Your task to perform on an android device: Open Android settings Image 0: 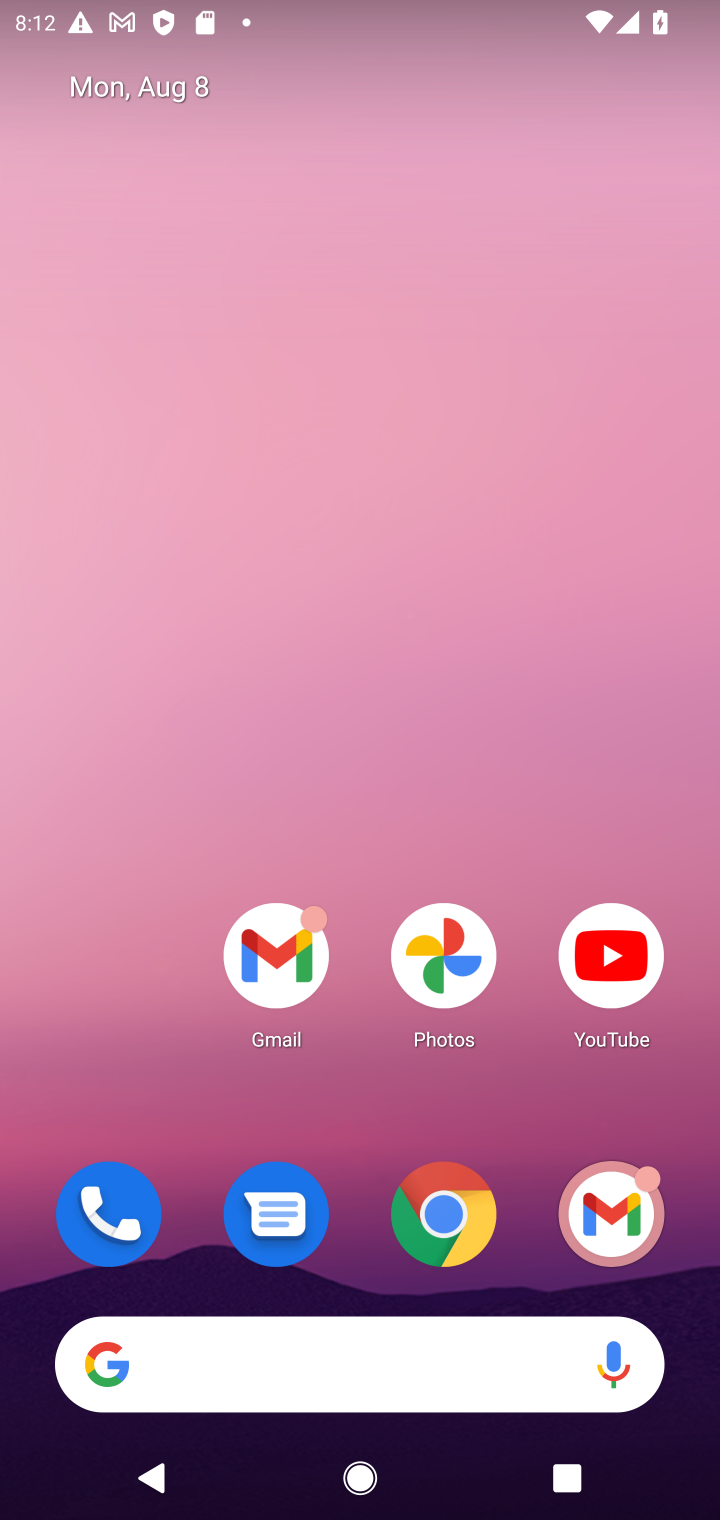
Step 0: drag from (184, 1081) to (548, 42)
Your task to perform on an android device: Open Android settings Image 1: 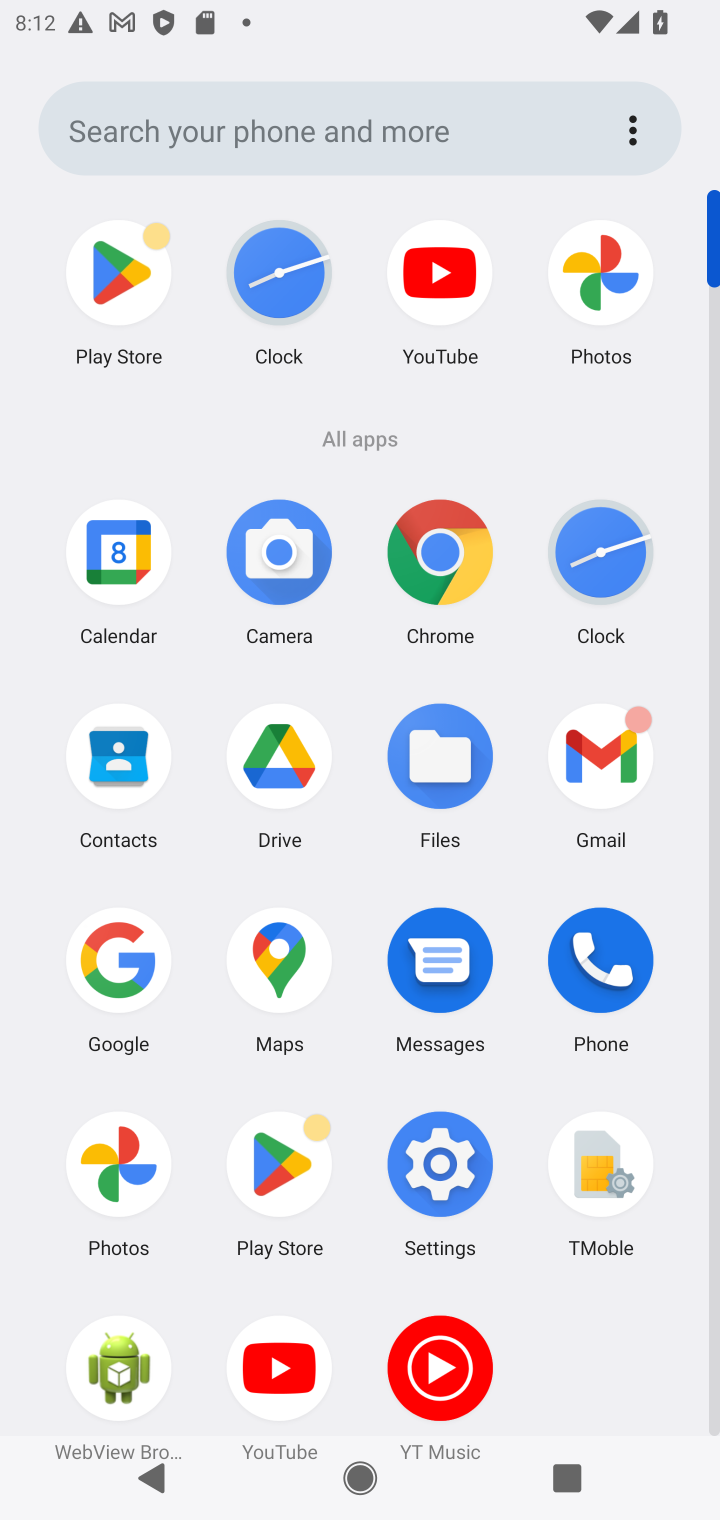
Step 1: click (437, 1141)
Your task to perform on an android device: Open Android settings Image 2: 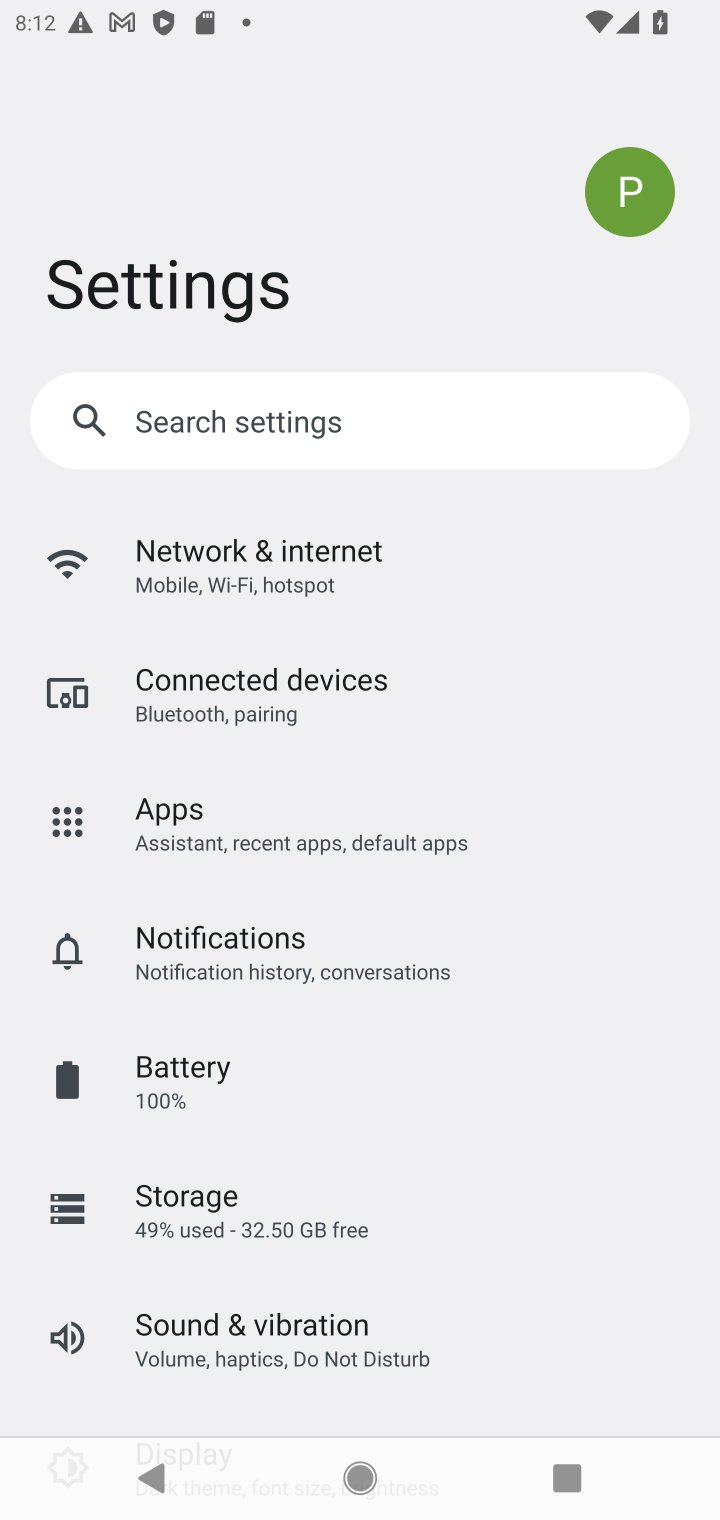
Step 2: click (525, 1141)
Your task to perform on an android device: Open Android settings Image 3: 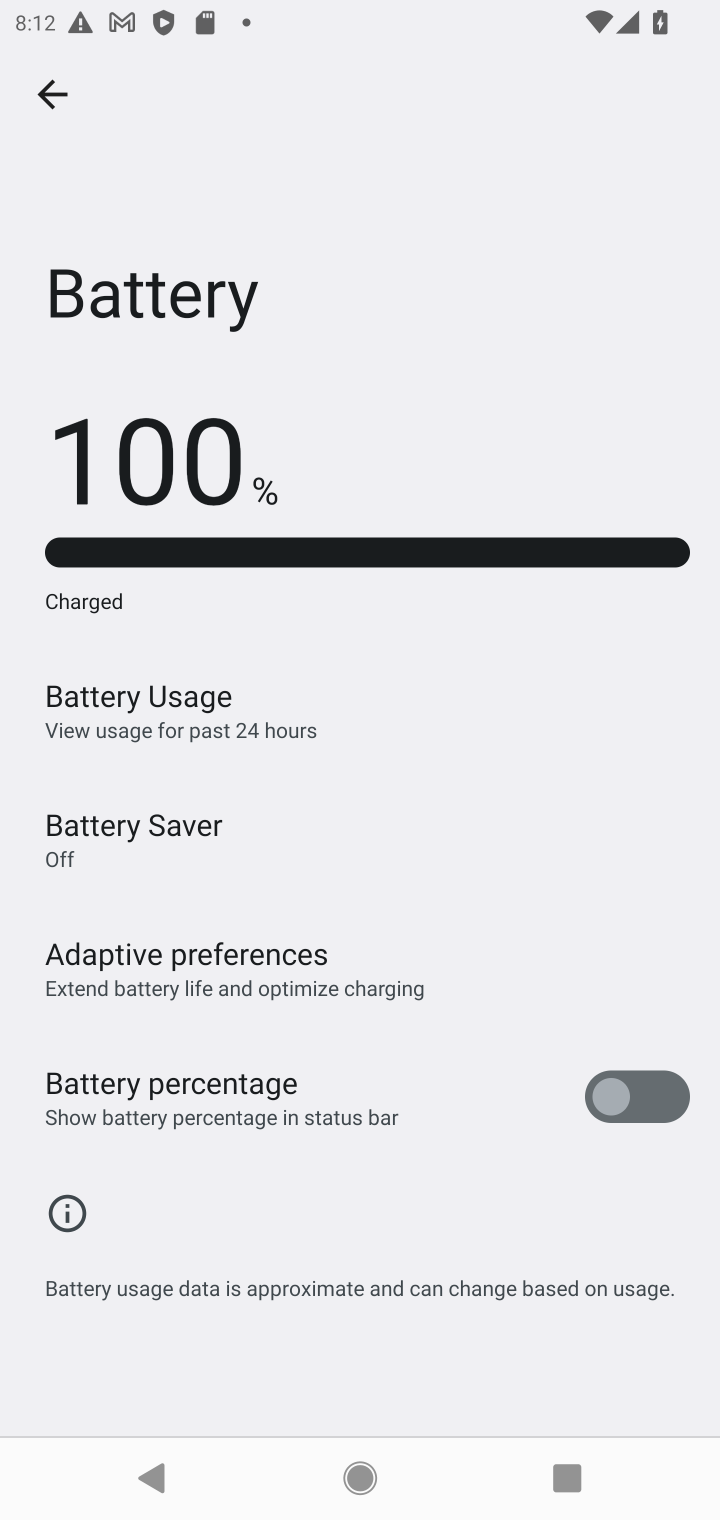
Step 3: click (55, 94)
Your task to perform on an android device: Open Android settings Image 4: 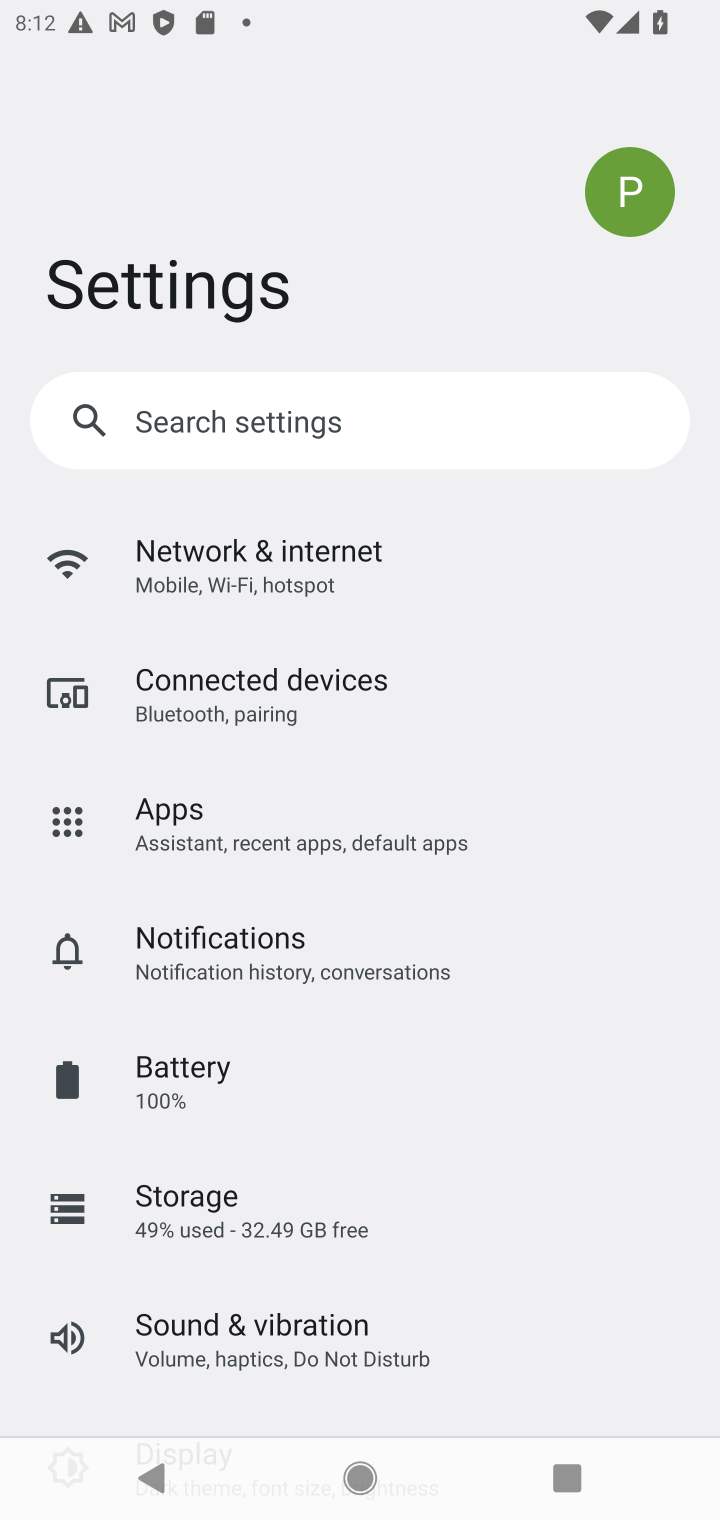
Step 4: drag from (629, 1169) to (304, 86)
Your task to perform on an android device: Open Android settings Image 5: 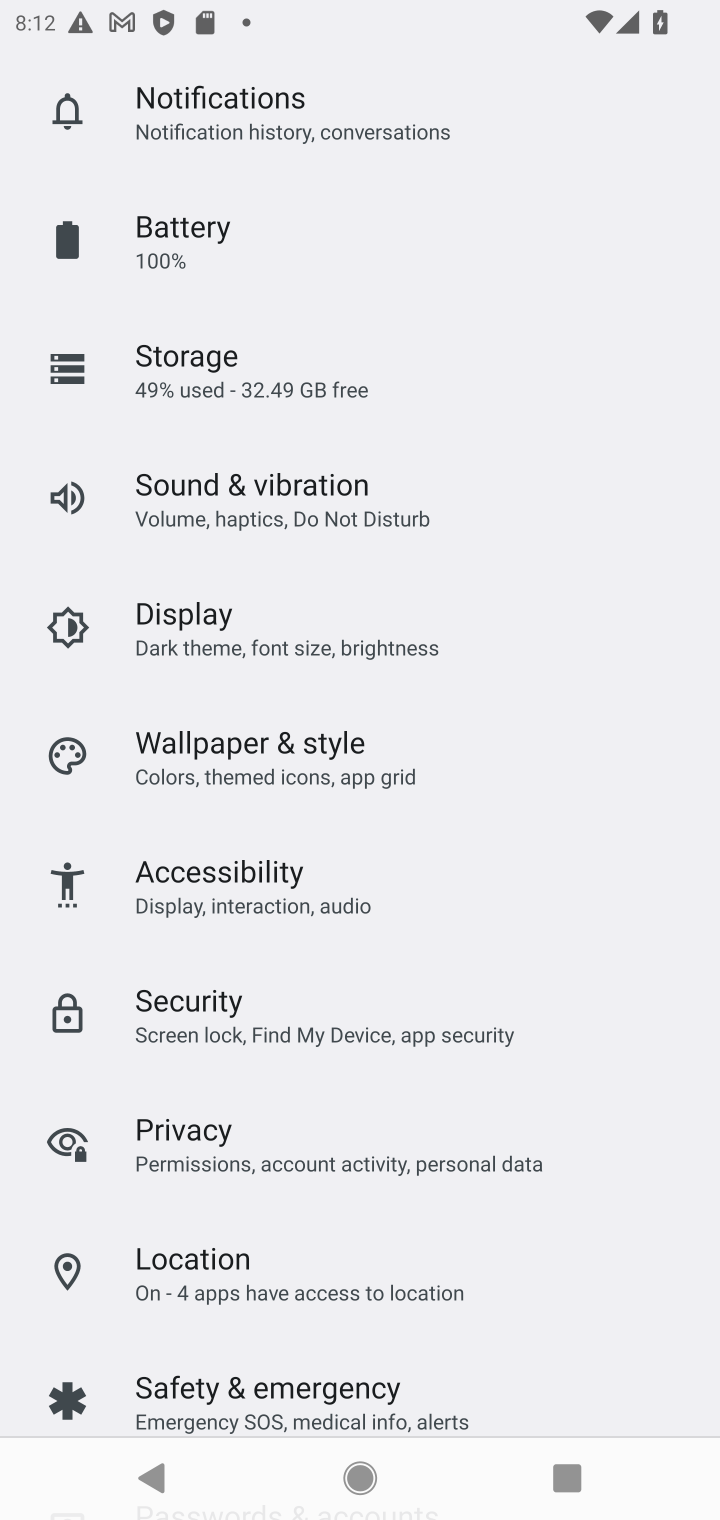
Step 5: drag from (572, 1227) to (483, 525)
Your task to perform on an android device: Open Android settings Image 6: 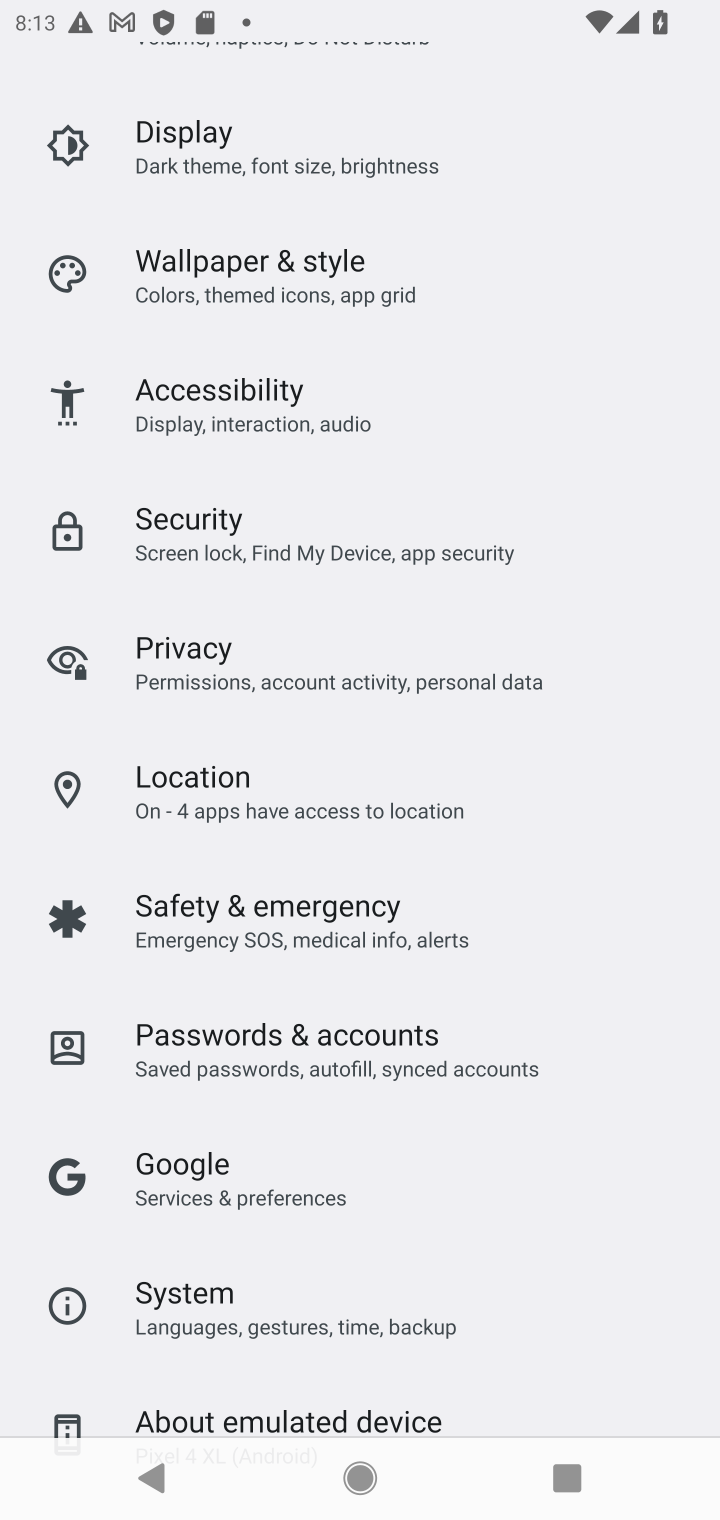
Step 6: drag from (650, 1291) to (418, 444)
Your task to perform on an android device: Open Android settings Image 7: 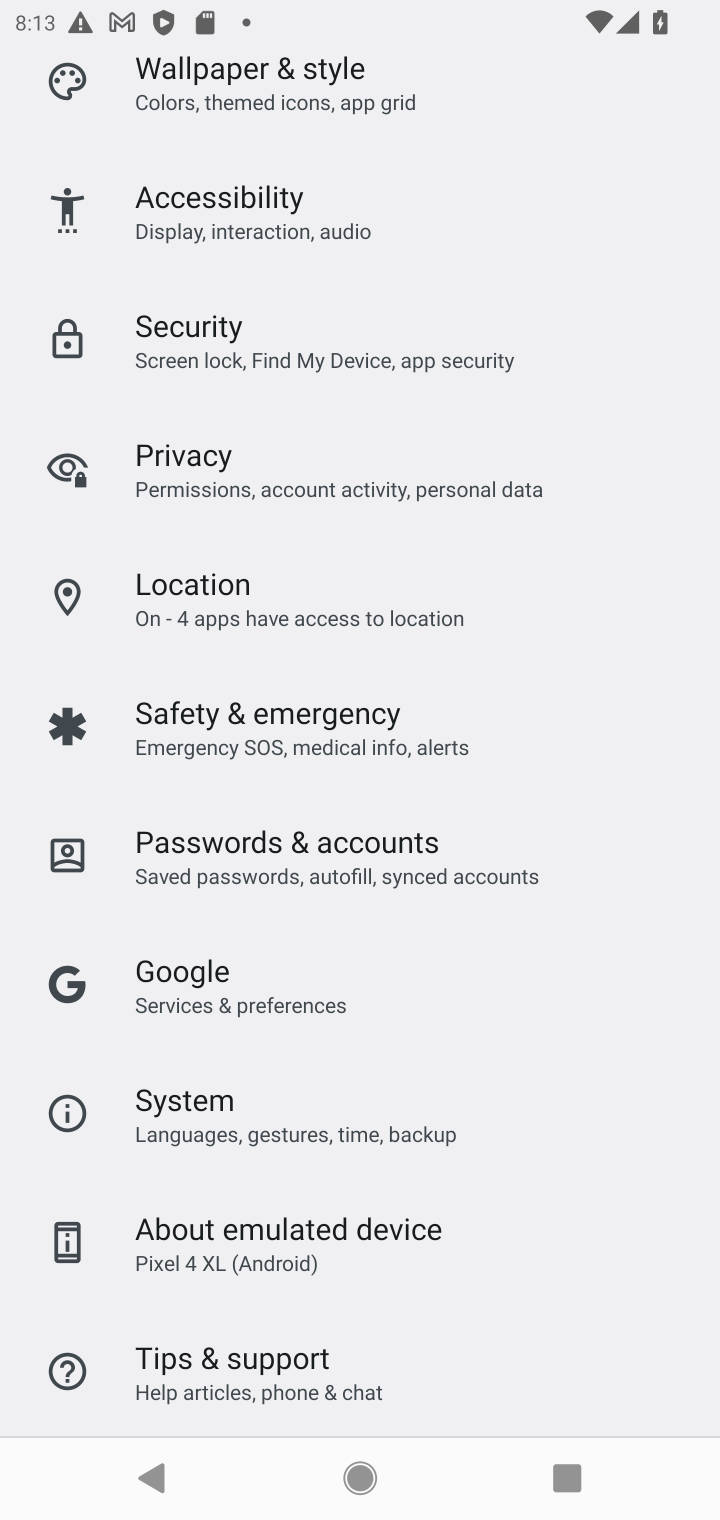
Step 7: click (203, 1232)
Your task to perform on an android device: Open Android settings Image 8: 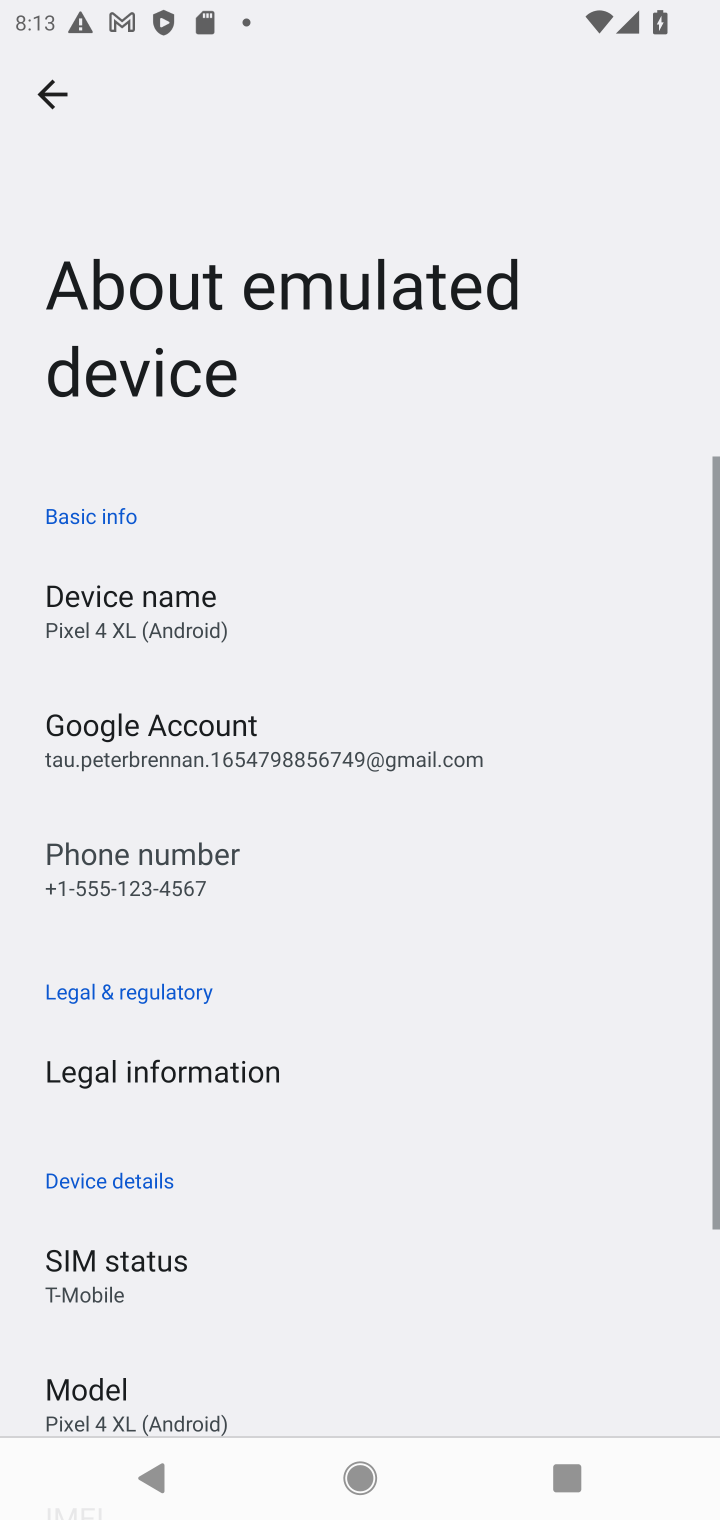
Step 8: click (175, 613)
Your task to perform on an android device: Open Android settings Image 9: 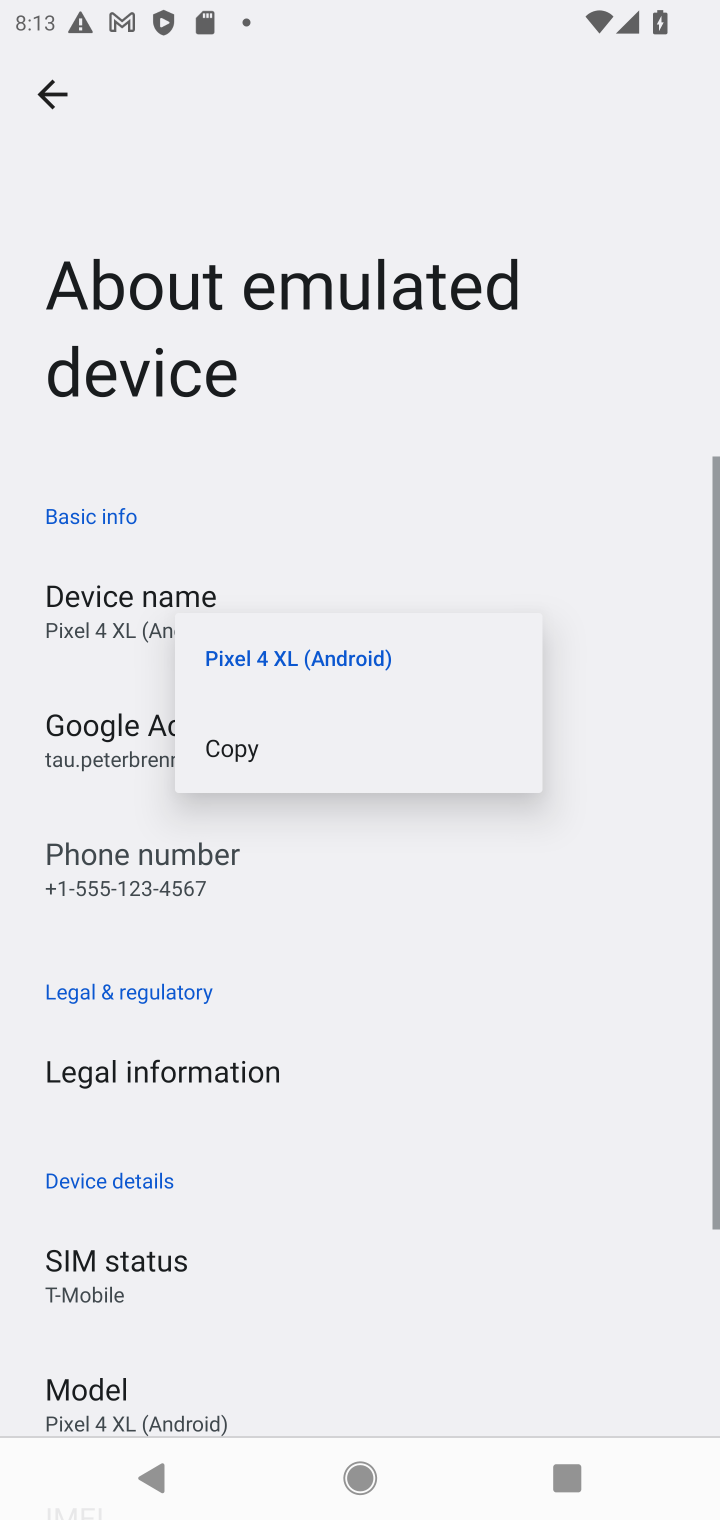
Step 9: click (253, 653)
Your task to perform on an android device: Open Android settings Image 10: 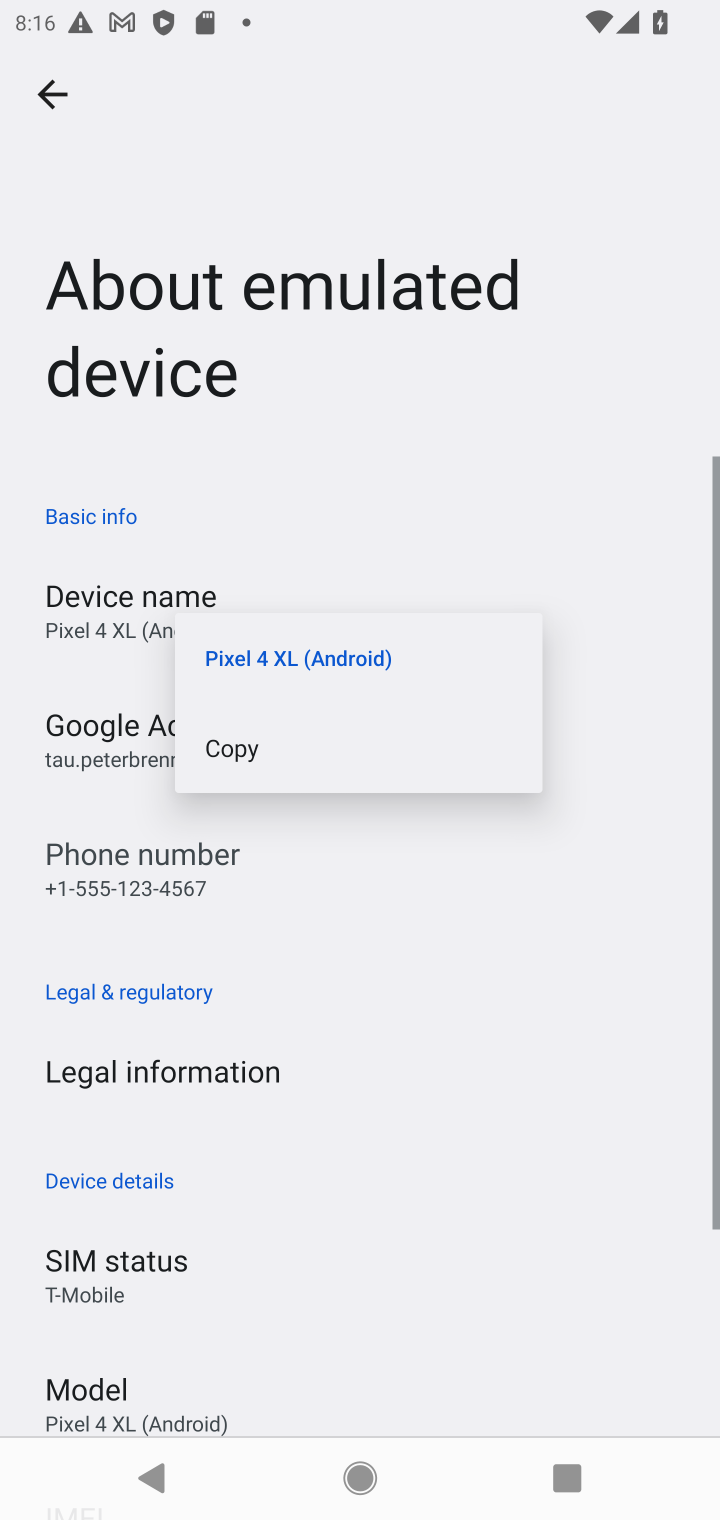
Step 10: task complete